Your task to perform on an android device: uninstall "HBO Max: Stream TV & Movies" Image 0: 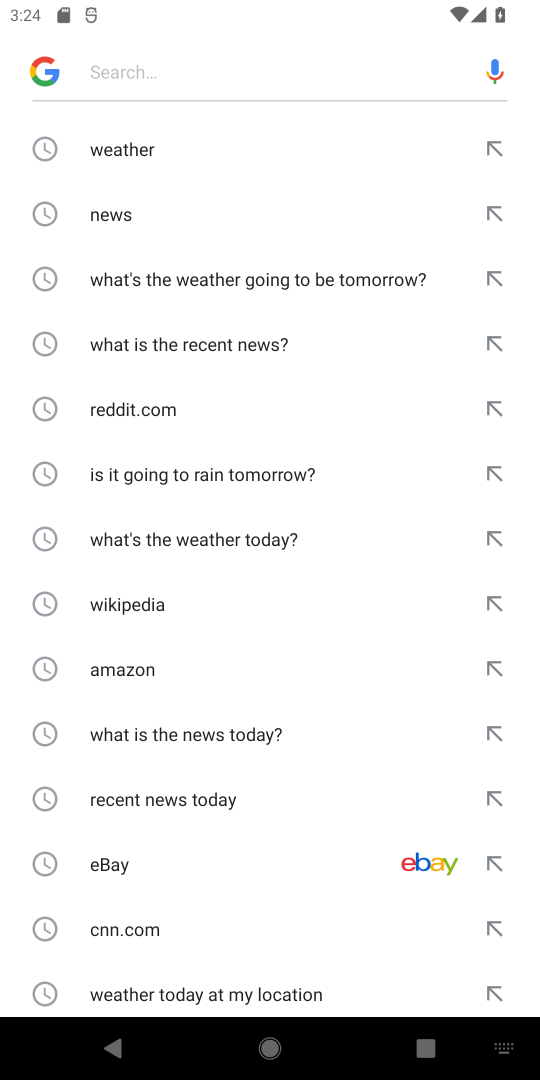
Step 0: press back button
Your task to perform on an android device: uninstall "HBO Max: Stream TV & Movies" Image 1: 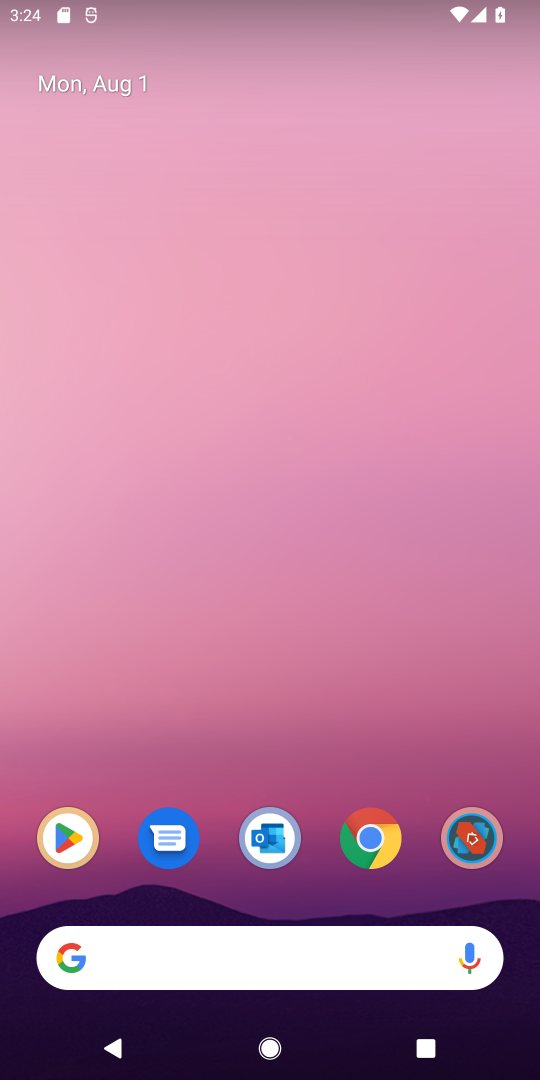
Step 1: click (57, 837)
Your task to perform on an android device: uninstall "HBO Max: Stream TV & Movies" Image 2: 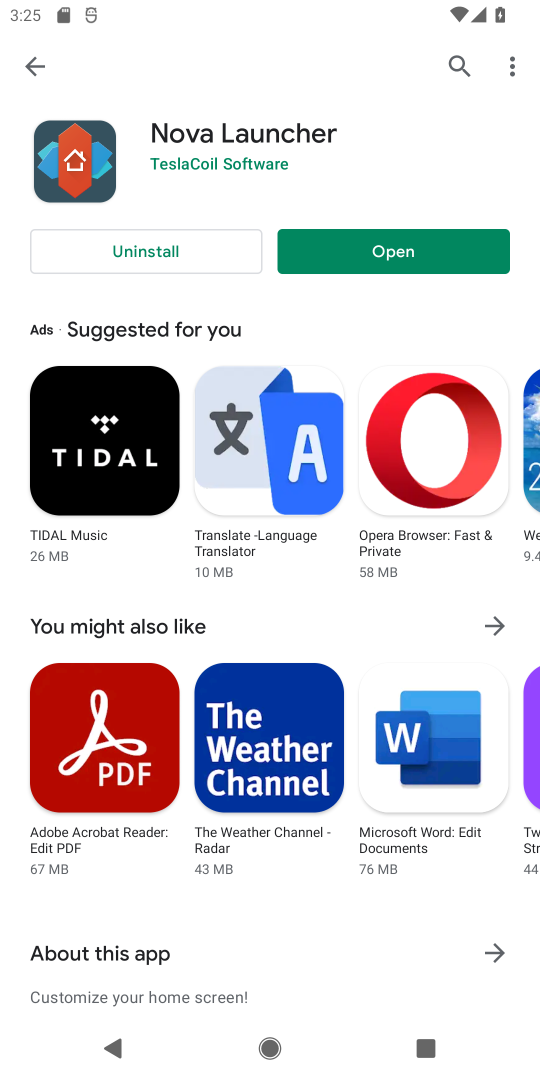
Step 2: click (455, 66)
Your task to perform on an android device: uninstall "HBO Max: Stream TV & Movies" Image 3: 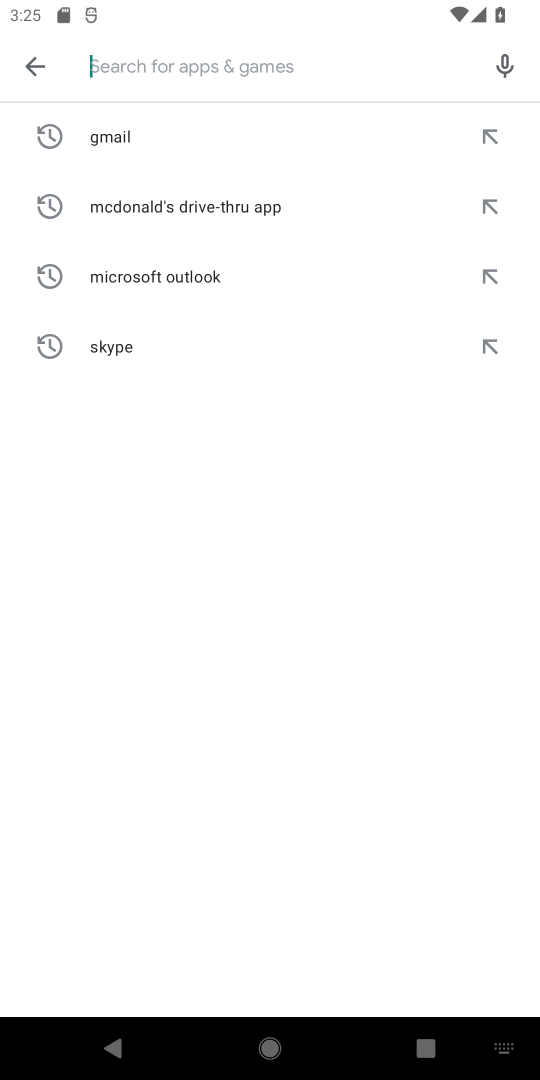
Step 3: type "HBO Max: Stream TV & Movies"
Your task to perform on an android device: uninstall "HBO Max: Stream TV & Movies" Image 4: 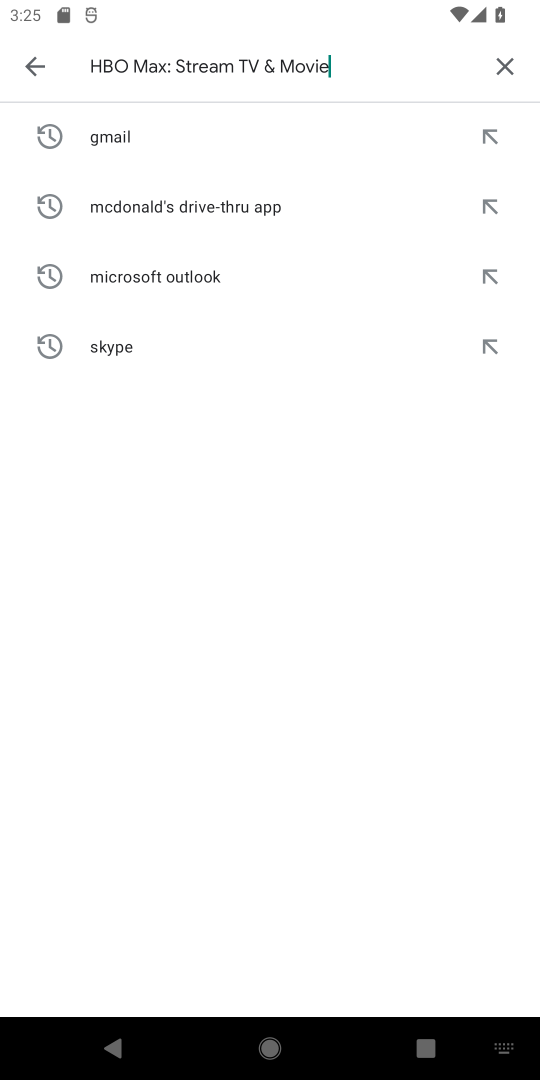
Step 4: type ""
Your task to perform on an android device: uninstall "HBO Max: Stream TV & Movies" Image 5: 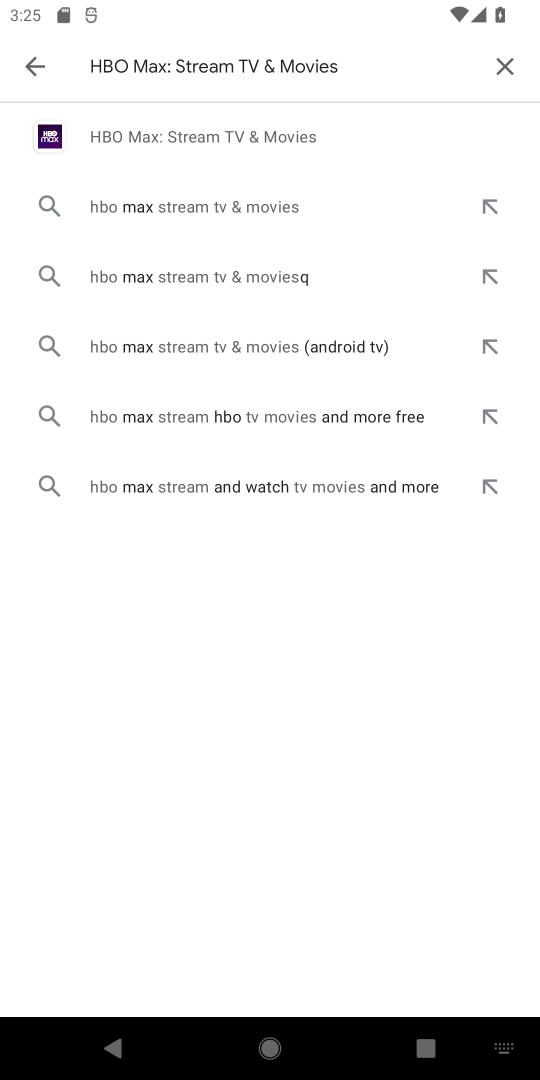
Step 5: click (173, 143)
Your task to perform on an android device: uninstall "HBO Max: Stream TV & Movies" Image 6: 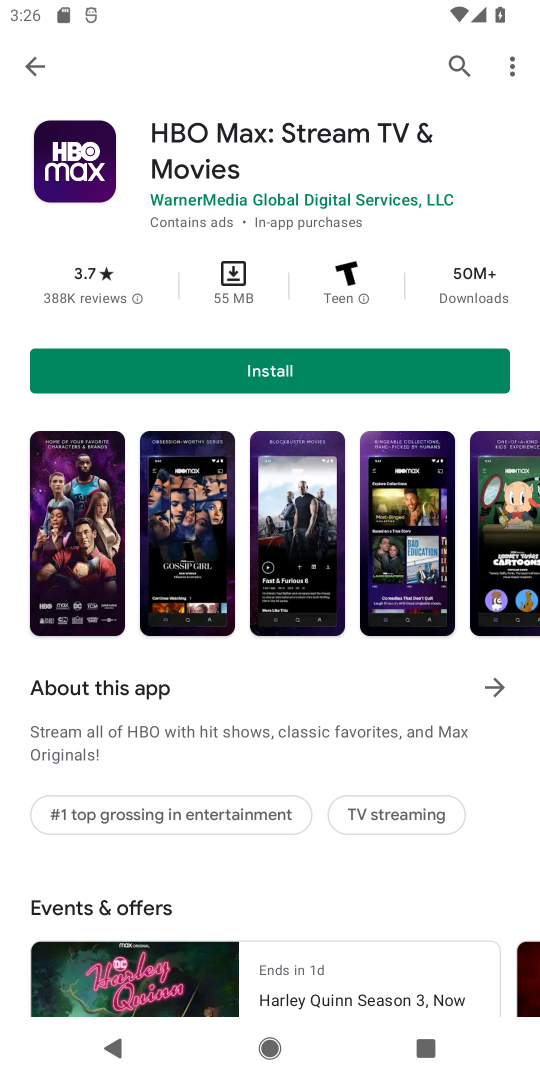
Step 6: task complete